Your task to perform on an android device: Go to network settings Image 0: 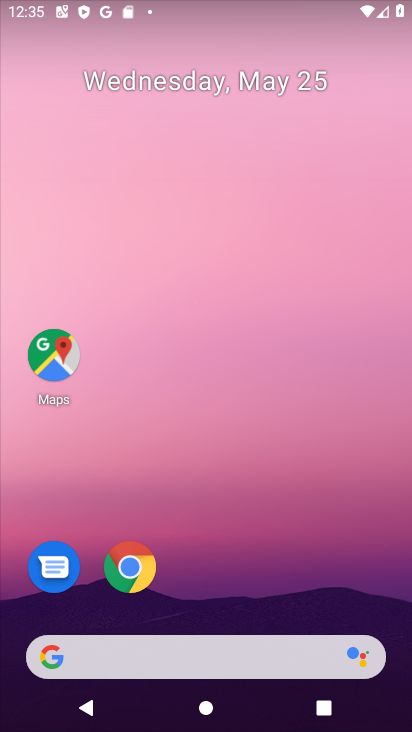
Step 0: drag from (254, 570) to (159, 109)
Your task to perform on an android device: Go to network settings Image 1: 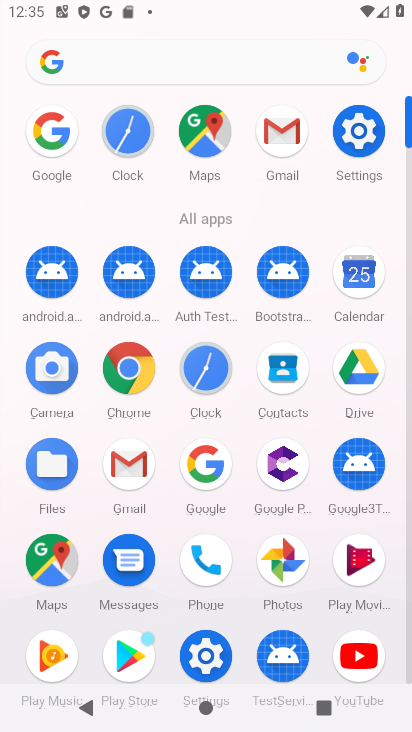
Step 1: click (357, 132)
Your task to perform on an android device: Go to network settings Image 2: 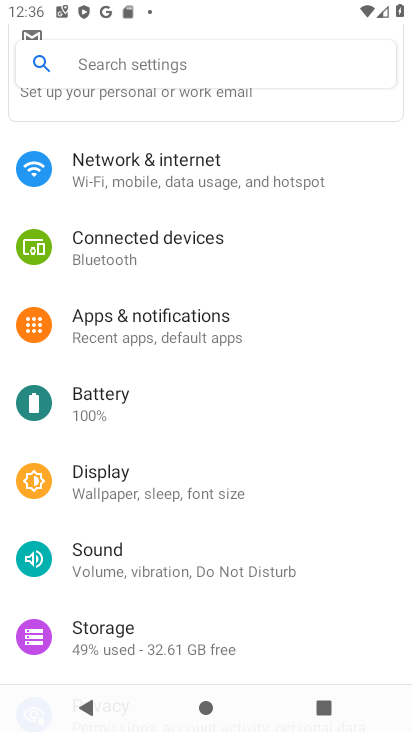
Step 2: click (114, 191)
Your task to perform on an android device: Go to network settings Image 3: 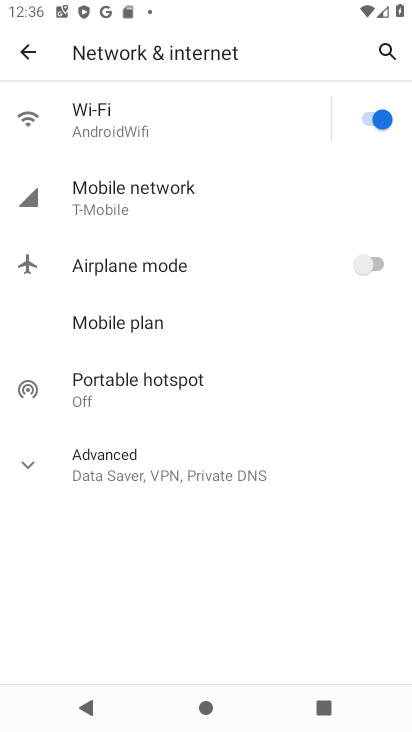
Step 3: click (93, 140)
Your task to perform on an android device: Go to network settings Image 4: 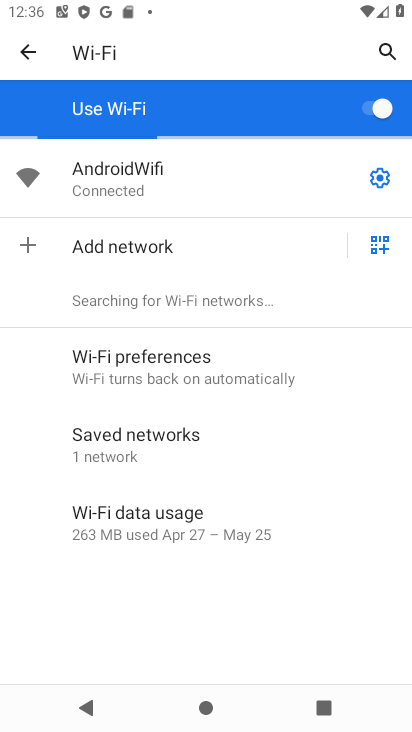
Step 4: click (380, 182)
Your task to perform on an android device: Go to network settings Image 5: 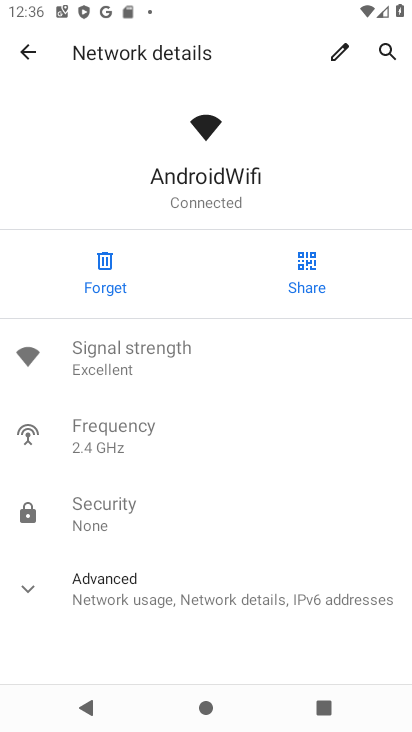
Step 5: task complete